Your task to perform on an android device: Open the stopwatch Image 0: 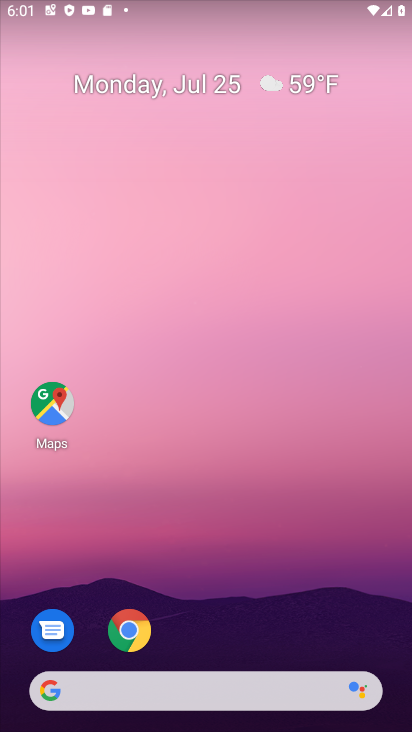
Step 0: drag from (207, 594) to (204, 192)
Your task to perform on an android device: Open the stopwatch Image 1: 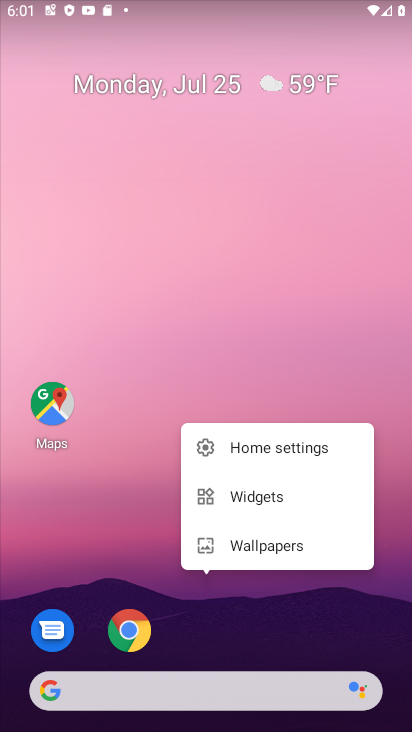
Step 1: click (210, 620)
Your task to perform on an android device: Open the stopwatch Image 2: 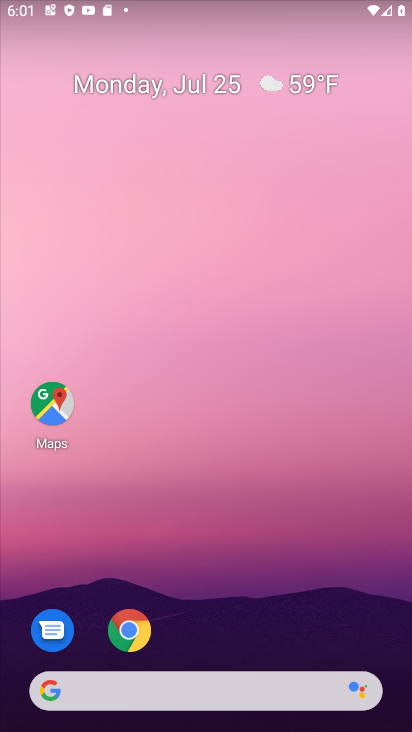
Step 2: drag from (210, 620) to (204, 225)
Your task to perform on an android device: Open the stopwatch Image 3: 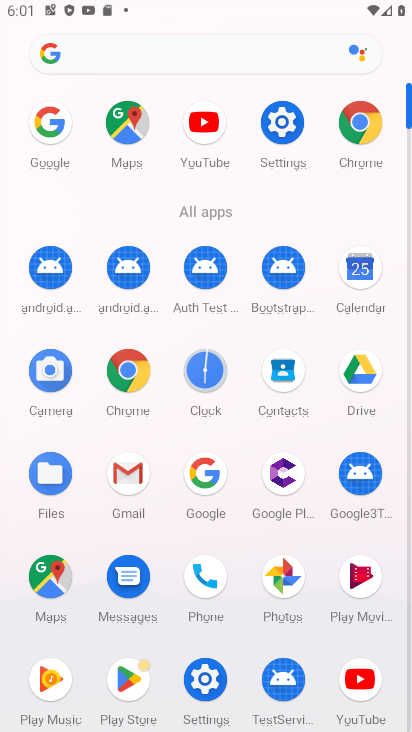
Step 3: click (214, 371)
Your task to perform on an android device: Open the stopwatch Image 4: 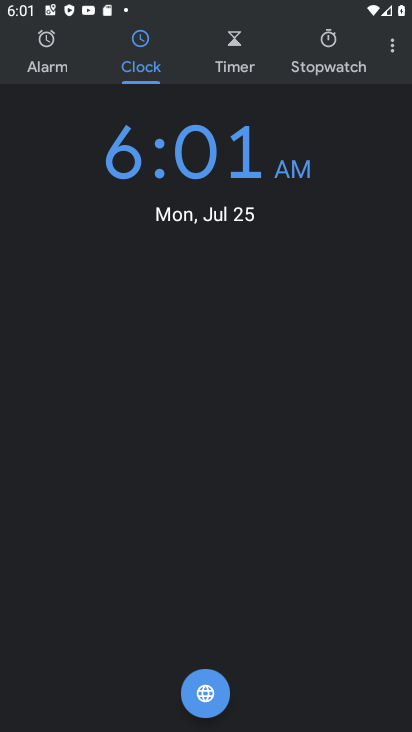
Step 4: click (340, 54)
Your task to perform on an android device: Open the stopwatch Image 5: 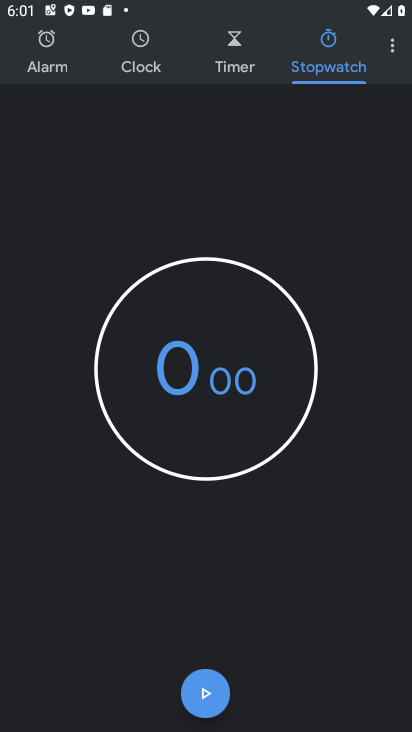
Step 5: task complete